Your task to perform on an android device: turn pop-ups off in chrome Image 0: 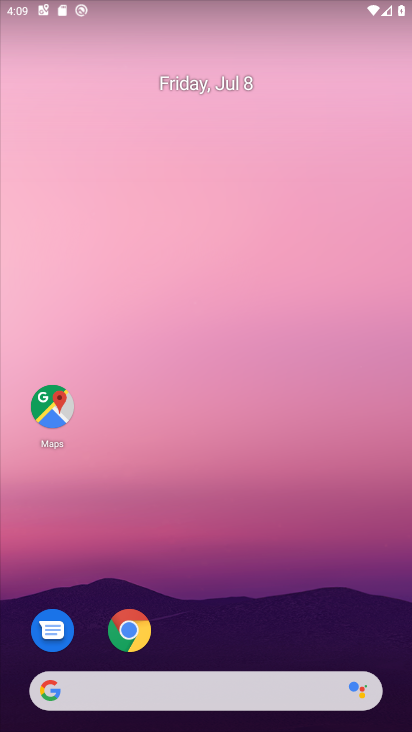
Step 0: drag from (285, 521) to (262, 23)
Your task to perform on an android device: turn pop-ups off in chrome Image 1: 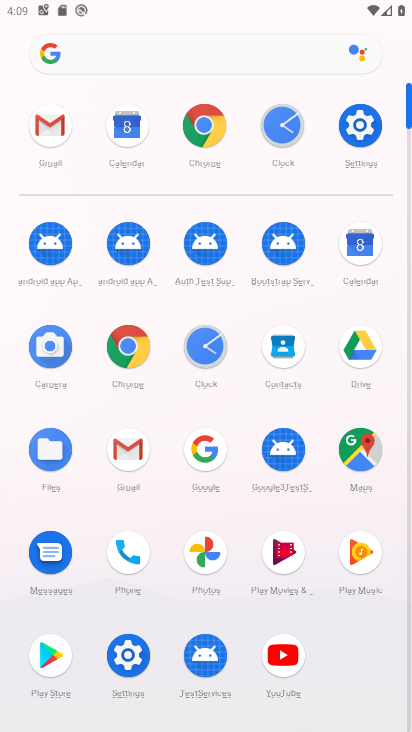
Step 1: click (206, 133)
Your task to perform on an android device: turn pop-ups off in chrome Image 2: 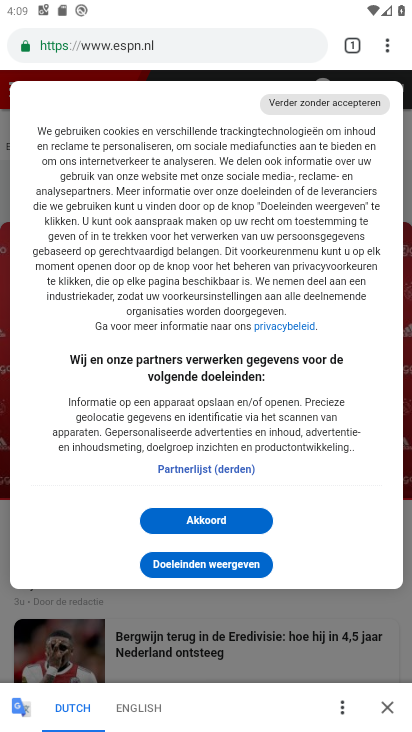
Step 2: click (386, 43)
Your task to perform on an android device: turn pop-ups off in chrome Image 3: 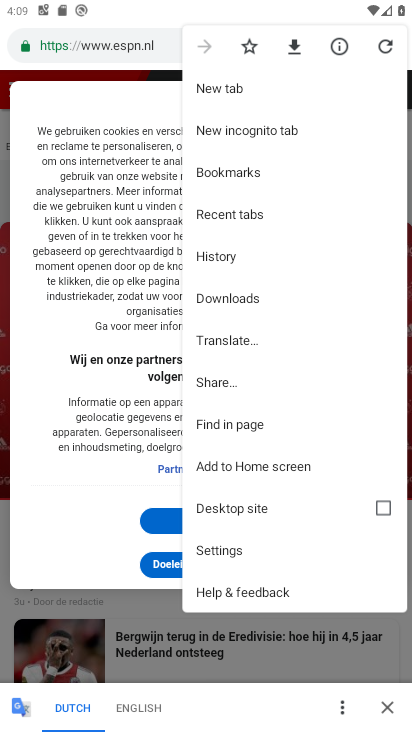
Step 3: click (244, 555)
Your task to perform on an android device: turn pop-ups off in chrome Image 4: 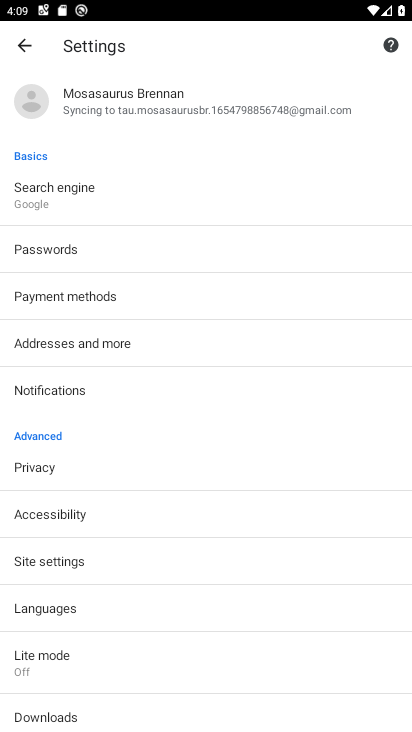
Step 4: click (89, 563)
Your task to perform on an android device: turn pop-ups off in chrome Image 5: 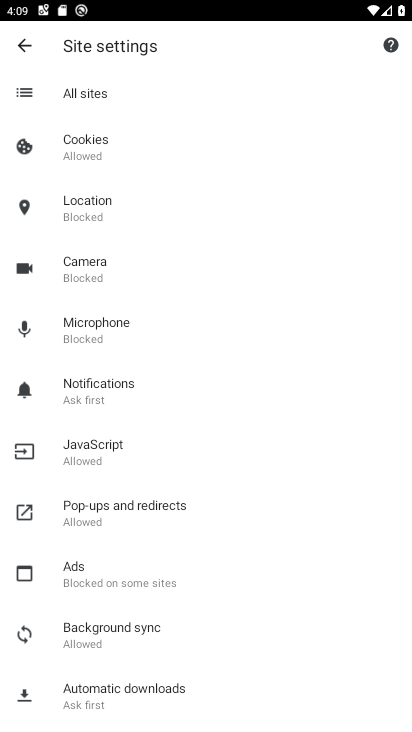
Step 5: click (164, 500)
Your task to perform on an android device: turn pop-ups off in chrome Image 6: 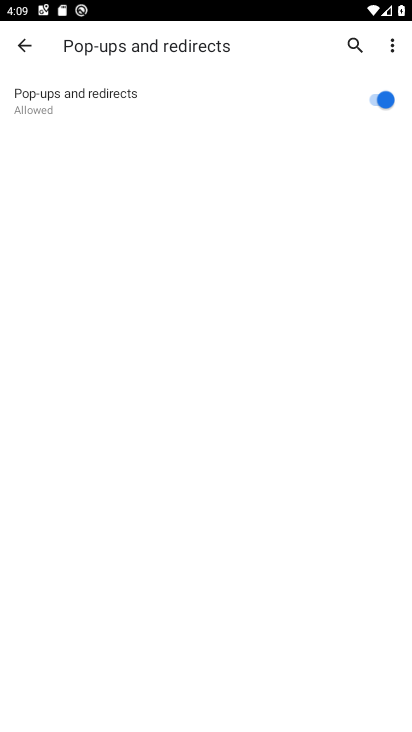
Step 6: click (385, 100)
Your task to perform on an android device: turn pop-ups off in chrome Image 7: 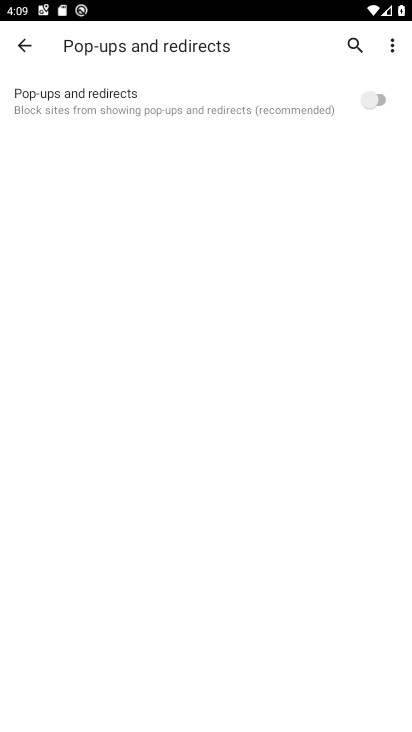
Step 7: task complete